Your task to perform on an android device: toggle notification dots Image 0: 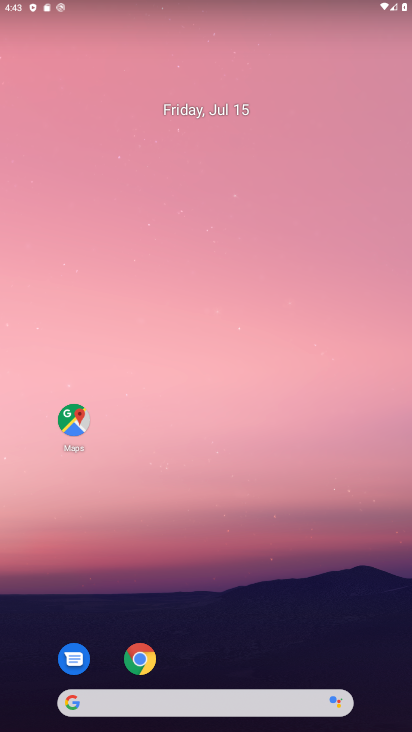
Step 0: drag from (321, 618) to (269, 110)
Your task to perform on an android device: toggle notification dots Image 1: 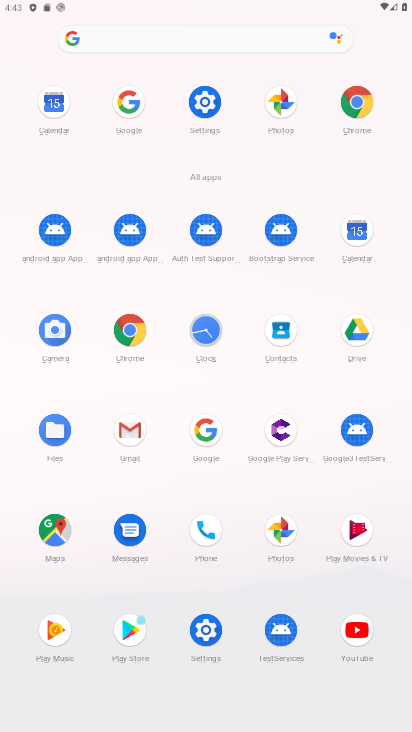
Step 1: click (210, 110)
Your task to perform on an android device: toggle notification dots Image 2: 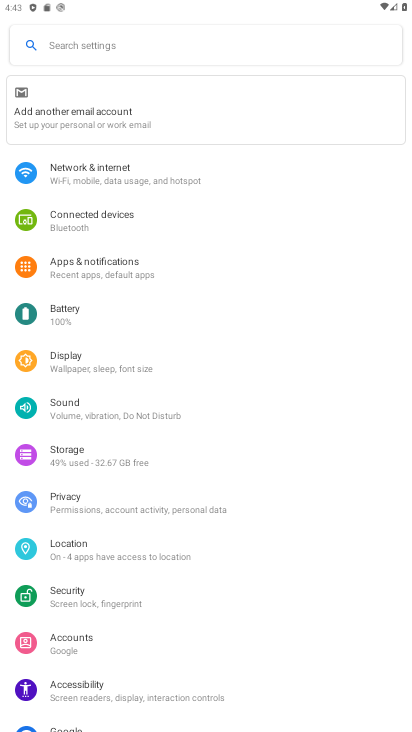
Step 2: click (80, 284)
Your task to perform on an android device: toggle notification dots Image 3: 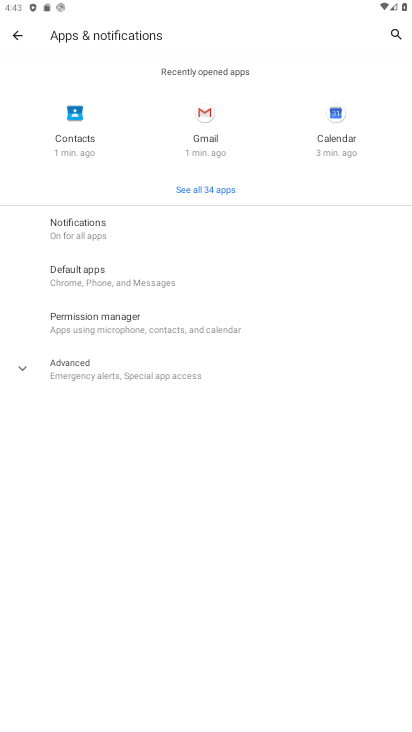
Step 3: click (83, 236)
Your task to perform on an android device: toggle notification dots Image 4: 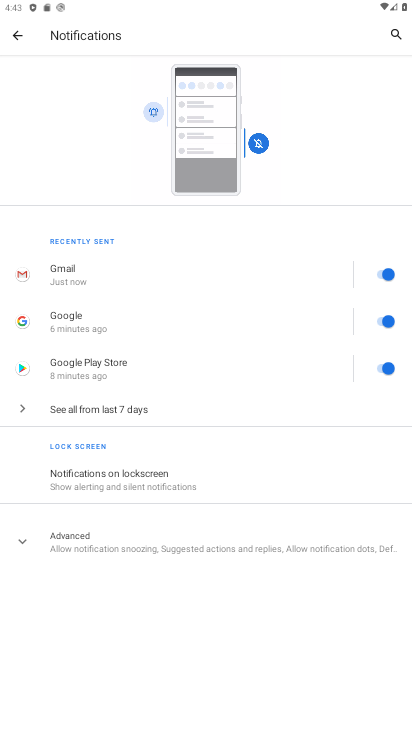
Step 4: click (87, 536)
Your task to perform on an android device: toggle notification dots Image 5: 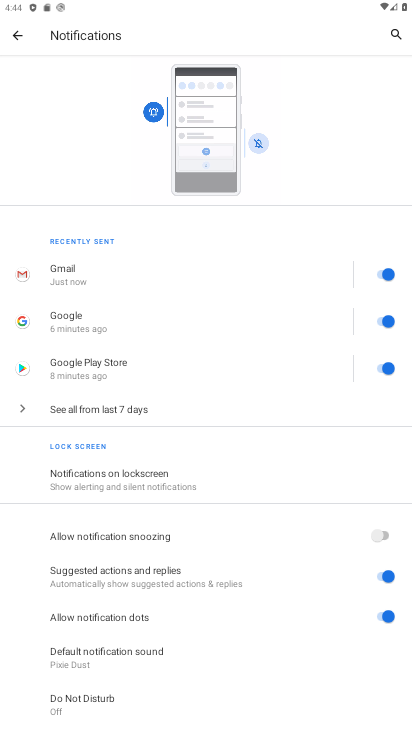
Step 5: click (390, 614)
Your task to perform on an android device: toggle notification dots Image 6: 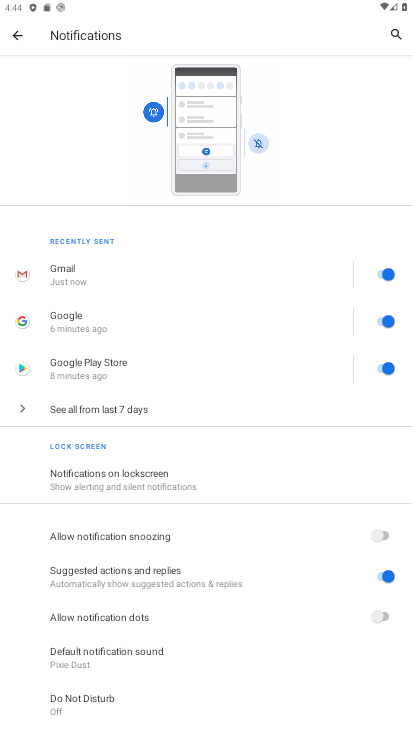
Step 6: task complete